Your task to perform on an android device: turn on notifications settings in the gmail app Image 0: 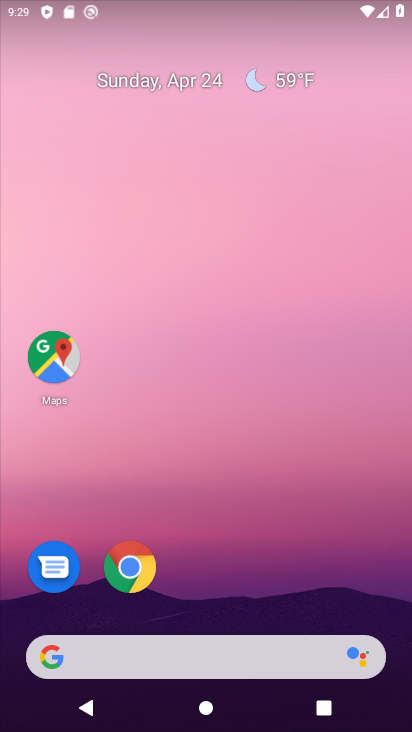
Step 0: drag from (391, 621) to (366, 268)
Your task to perform on an android device: turn on notifications settings in the gmail app Image 1: 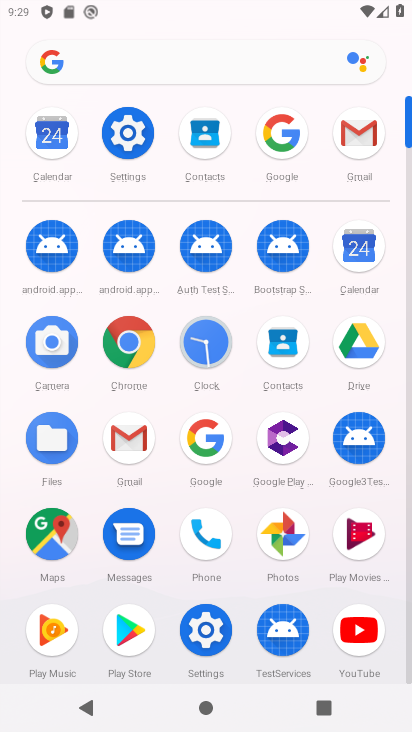
Step 1: click (358, 121)
Your task to perform on an android device: turn on notifications settings in the gmail app Image 2: 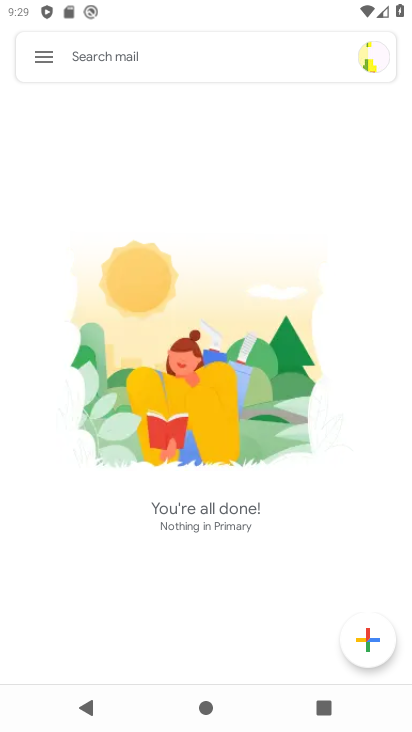
Step 2: click (41, 60)
Your task to perform on an android device: turn on notifications settings in the gmail app Image 3: 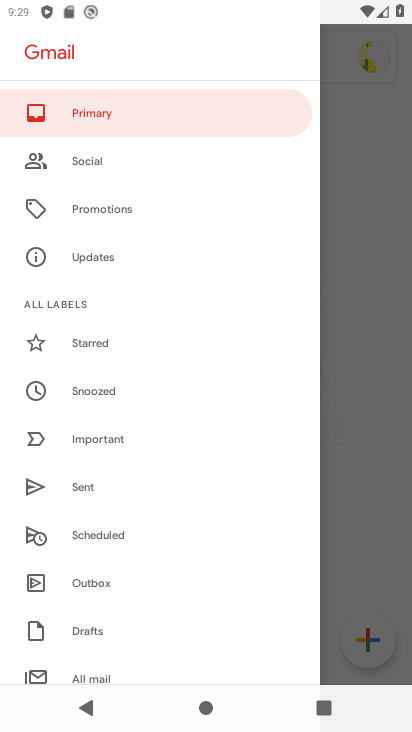
Step 3: drag from (217, 489) to (243, 277)
Your task to perform on an android device: turn on notifications settings in the gmail app Image 4: 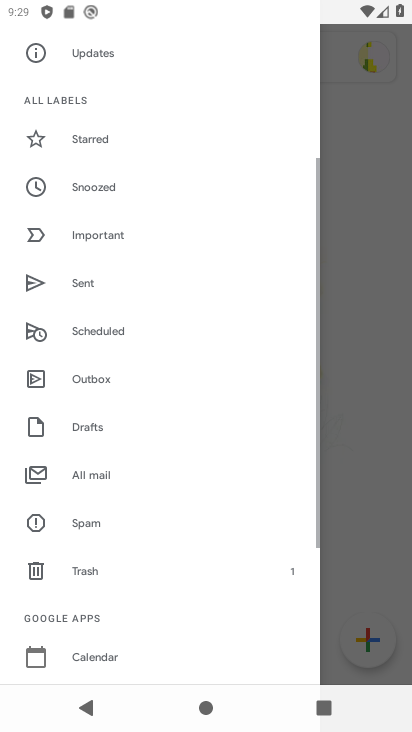
Step 4: drag from (278, 336) to (299, 201)
Your task to perform on an android device: turn on notifications settings in the gmail app Image 5: 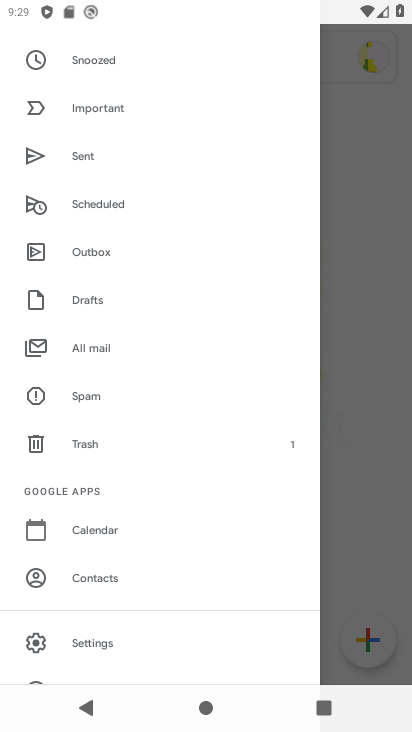
Step 5: click (88, 646)
Your task to perform on an android device: turn on notifications settings in the gmail app Image 6: 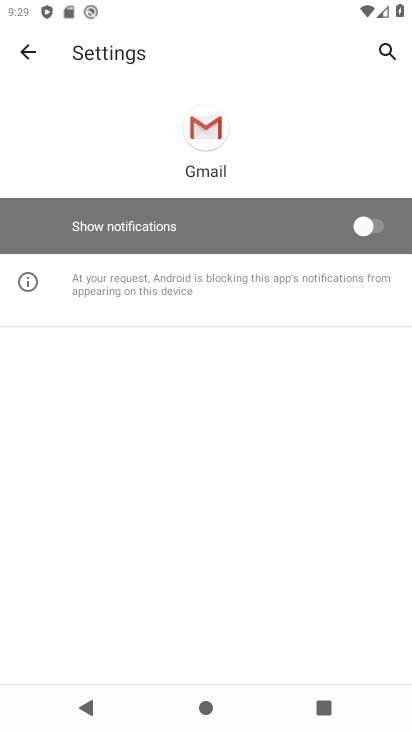
Step 6: click (376, 219)
Your task to perform on an android device: turn on notifications settings in the gmail app Image 7: 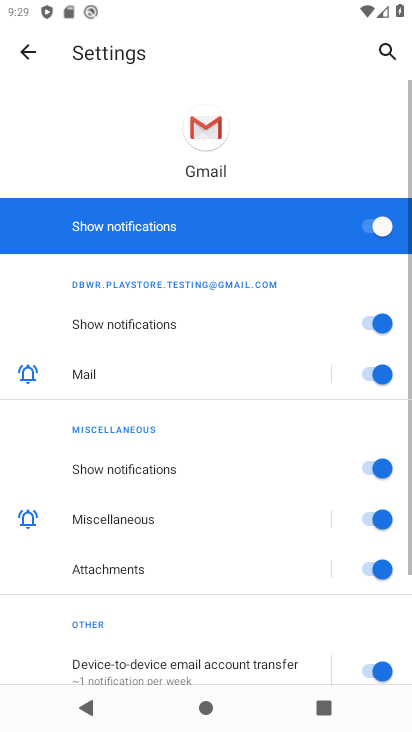
Step 7: task complete